Your task to perform on an android device: Turn off the flashlight Image 0: 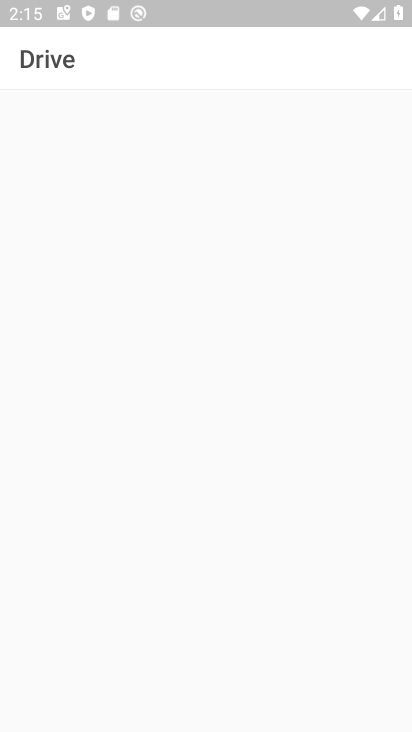
Step 0: press home button
Your task to perform on an android device: Turn off the flashlight Image 1: 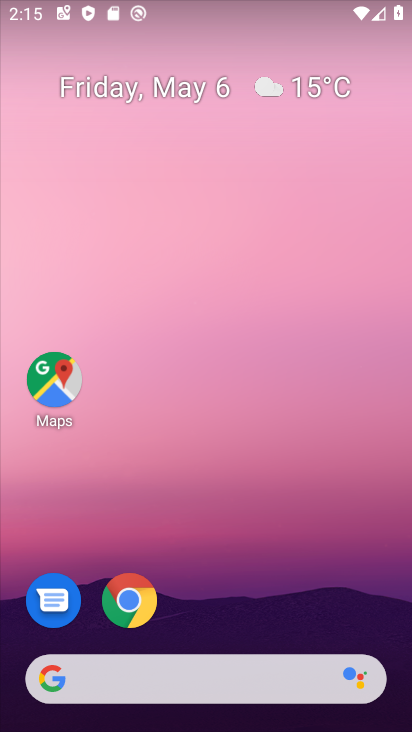
Step 1: drag from (226, 591) to (231, 8)
Your task to perform on an android device: Turn off the flashlight Image 2: 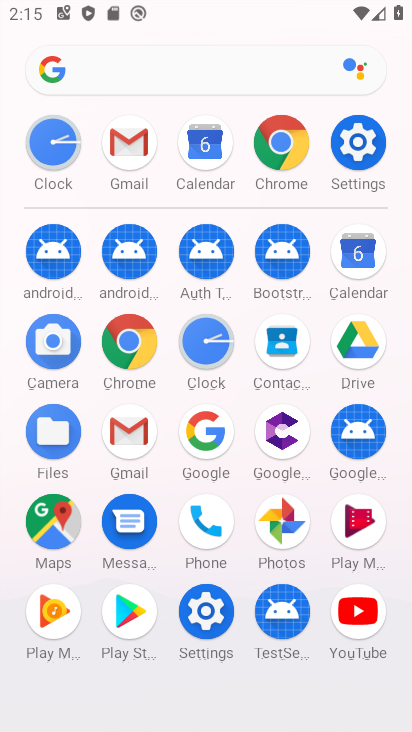
Step 2: click (357, 137)
Your task to perform on an android device: Turn off the flashlight Image 3: 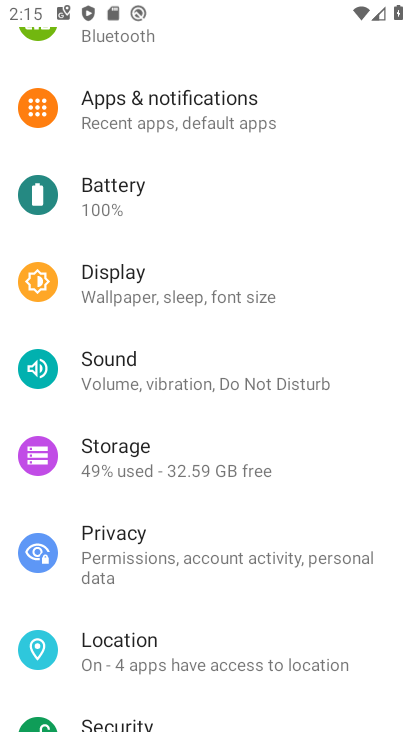
Step 3: drag from (261, 227) to (239, 643)
Your task to perform on an android device: Turn off the flashlight Image 4: 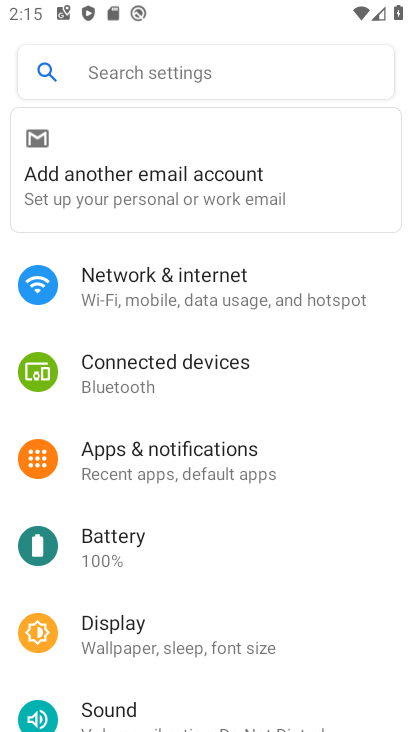
Step 4: click (227, 286)
Your task to perform on an android device: Turn off the flashlight Image 5: 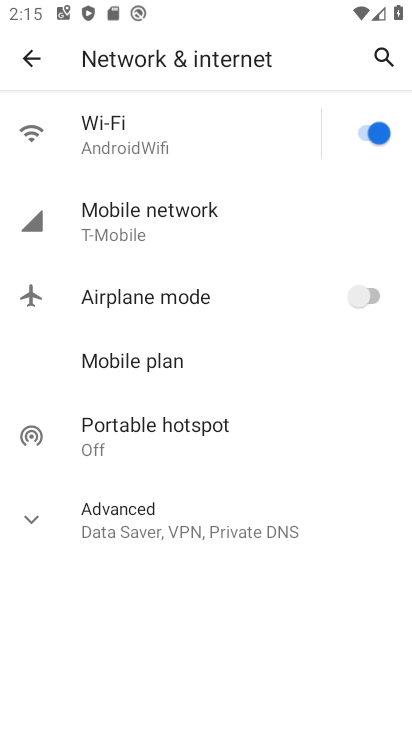
Step 5: click (35, 520)
Your task to perform on an android device: Turn off the flashlight Image 6: 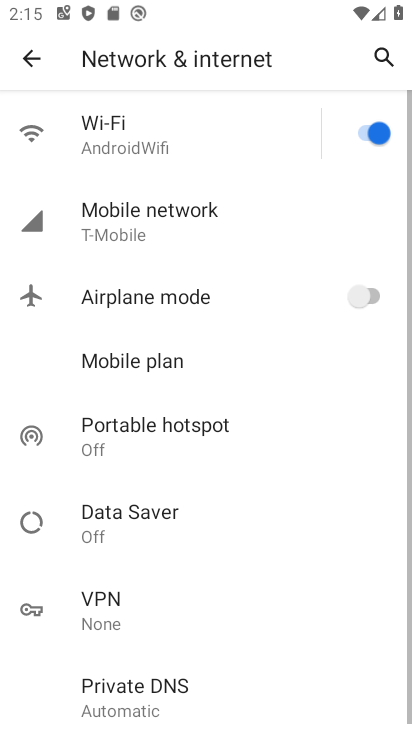
Step 6: task complete